Your task to perform on an android device: Open Yahoo.com Image 0: 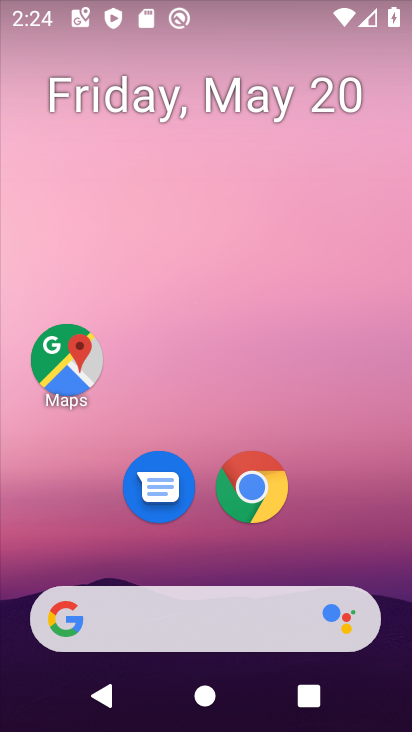
Step 0: drag from (334, 450) to (374, 114)
Your task to perform on an android device: Open Yahoo.com Image 1: 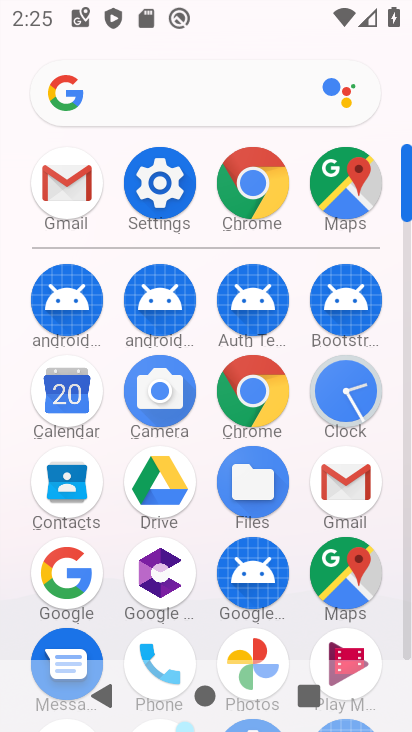
Step 1: click (262, 159)
Your task to perform on an android device: Open Yahoo.com Image 2: 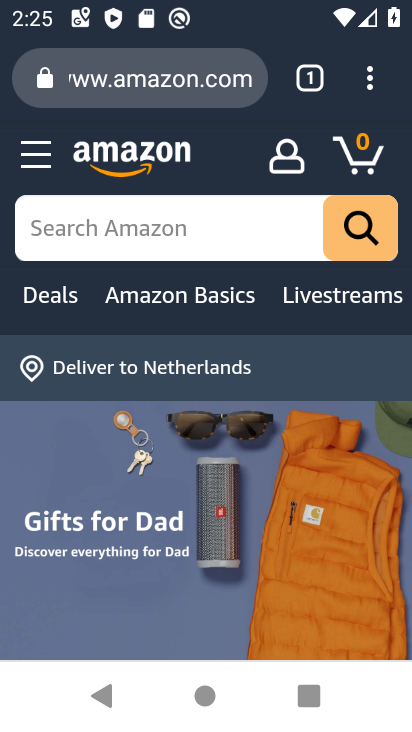
Step 2: click (172, 84)
Your task to perform on an android device: Open Yahoo.com Image 3: 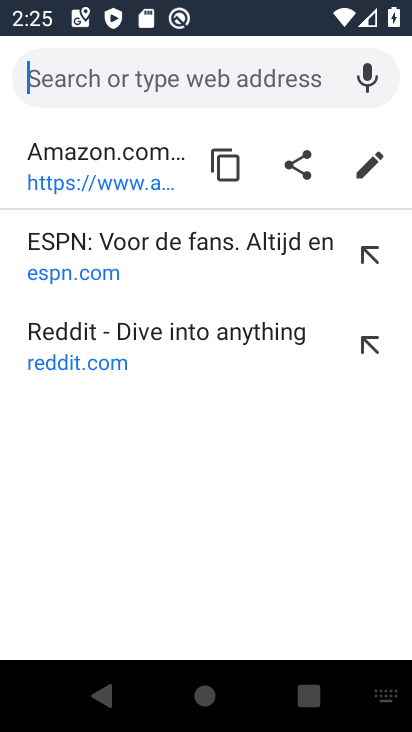
Step 3: type "yahoo"
Your task to perform on an android device: Open Yahoo.com Image 4: 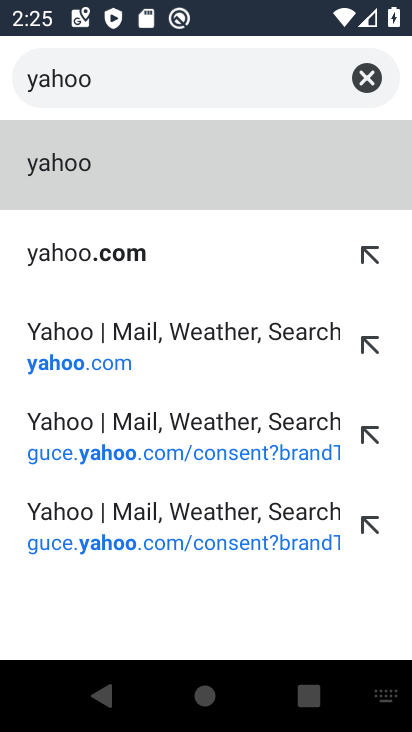
Step 4: click (96, 276)
Your task to perform on an android device: Open Yahoo.com Image 5: 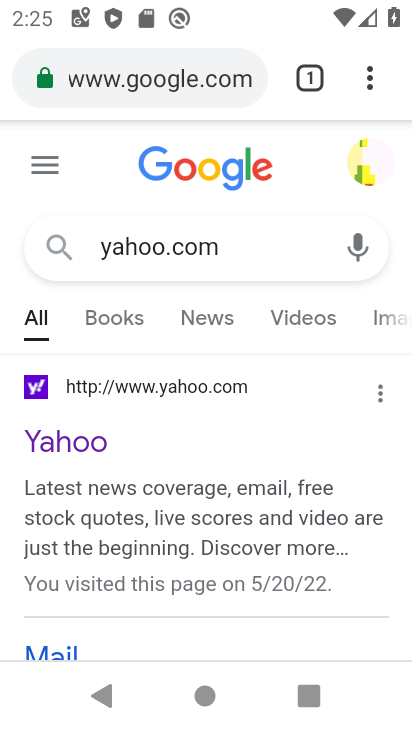
Step 5: click (80, 439)
Your task to perform on an android device: Open Yahoo.com Image 6: 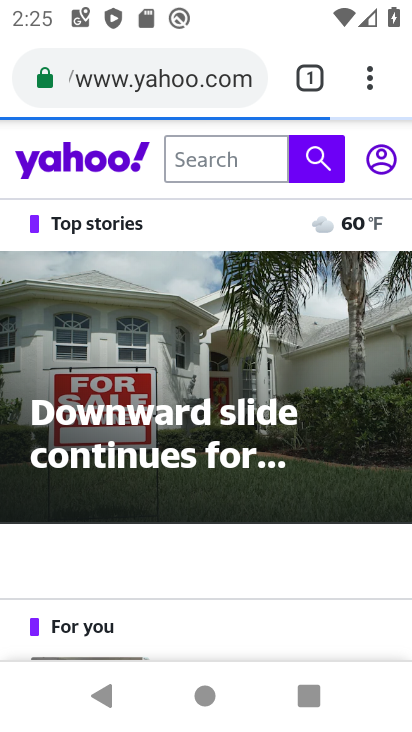
Step 6: task complete